Your task to perform on an android device: turn off notifications in google photos Image 0: 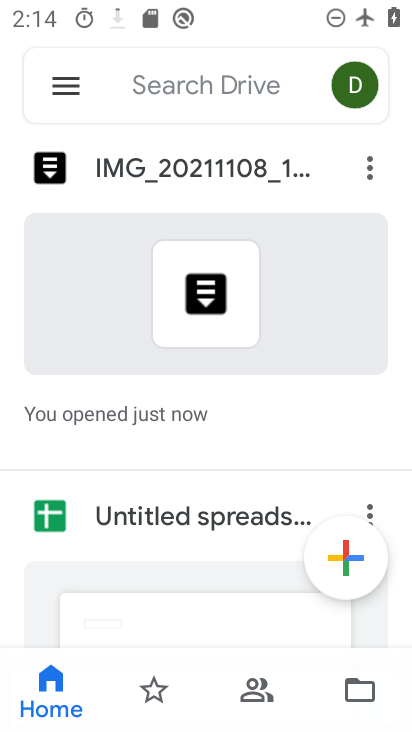
Step 0: drag from (236, 634) to (340, 138)
Your task to perform on an android device: turn off notifications in google photos Image 1: 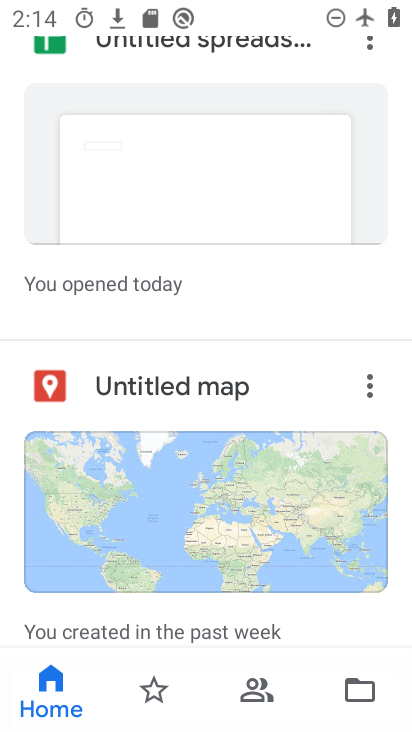
Step 1: drag from (193, 636) to (357, 175)
Your task to perform on an android device: turn off notifications in google photos Image 2: 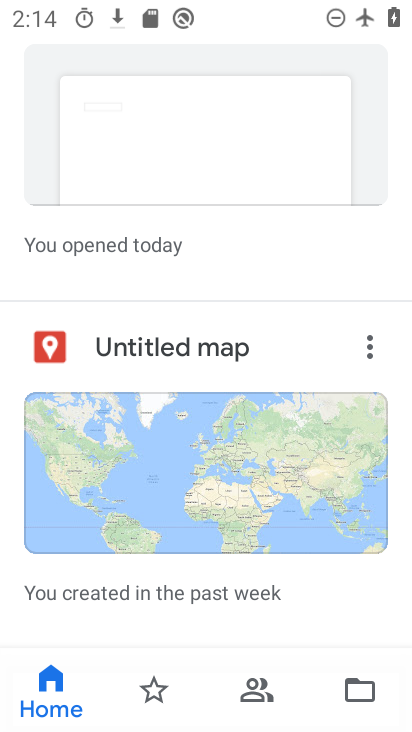
Step 2: drag from (210, 604) to (197, 59)
Your task to perform on an android device: turn off notifications in google photos Image 3: 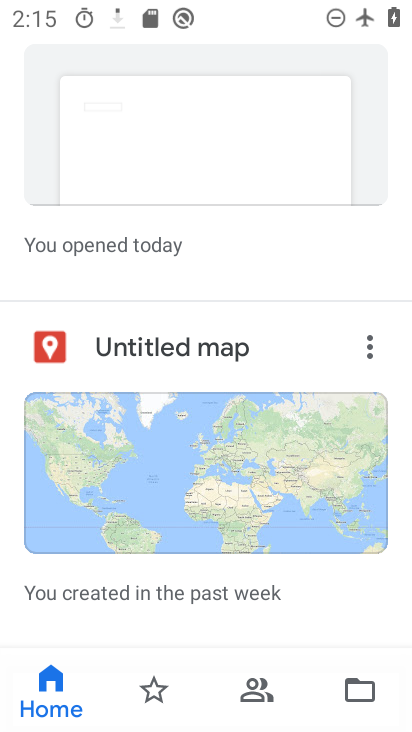
Step 3: drag from (182, 545) to (271, 177)
Your task to perform on an android device: turn off notifications in google photos Image 4: 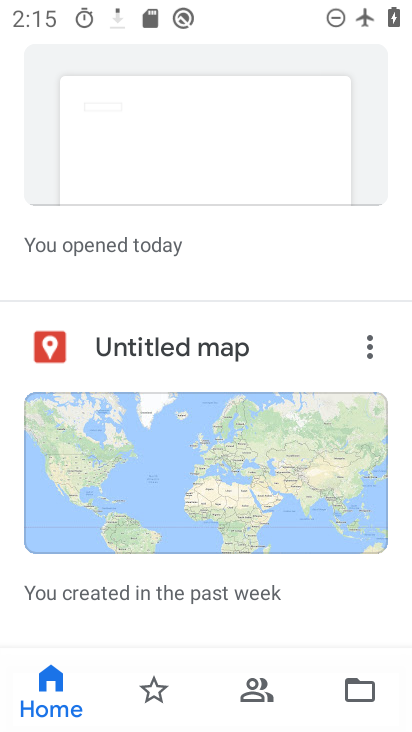
Step 4: drag from (226, 355) to (276, 724)
Your task to perform on an android device: turn off notifications in google photos Image 5: 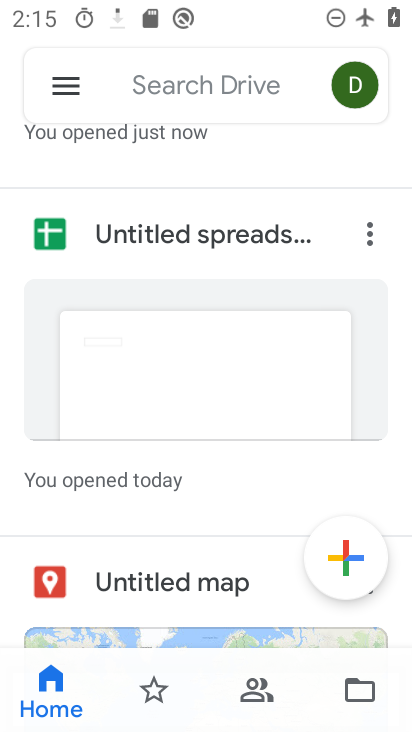
Step 5: drag from (246, 231) to (322, 636)
Your task to perform on an android device: turn off notifications in google photos Image 6: 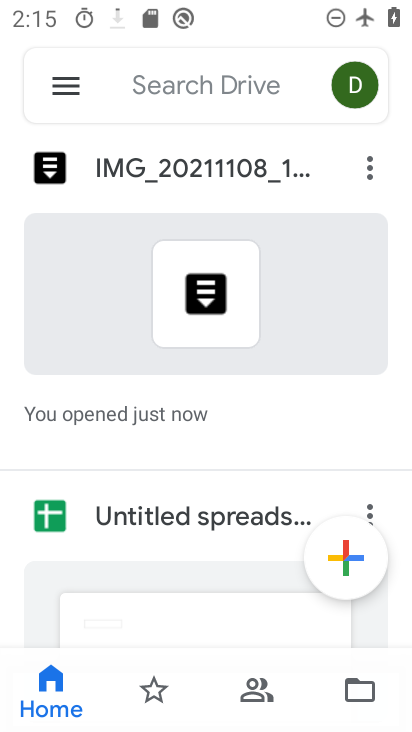
Step 6: drag from (182, 159) to (229, 547)
Your task to perform on an android device: turn off notifications in google photos Image 7: 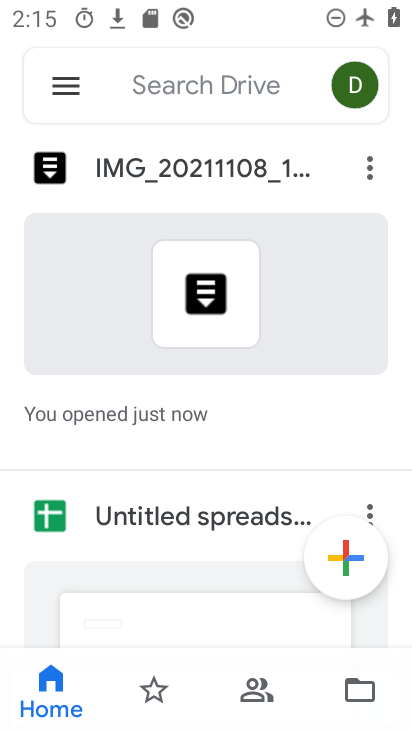
Step 7: press home button
Your task to perform on an android device: turn off notifications in google photos Image 8: 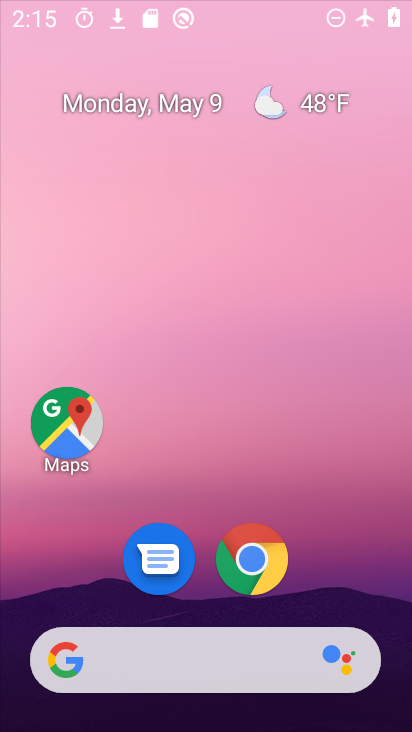
Step 8: drag from (193, 625) to (274, 149)
Your task to perform on an android device: turn off notifications in google photos Image 9: 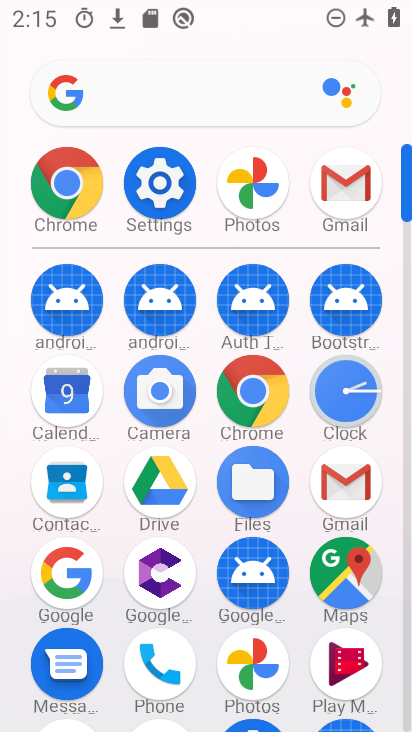
Step 9: click (262, 667)
Your task to perform on an android device: turn off notifications in google photos Image 10: 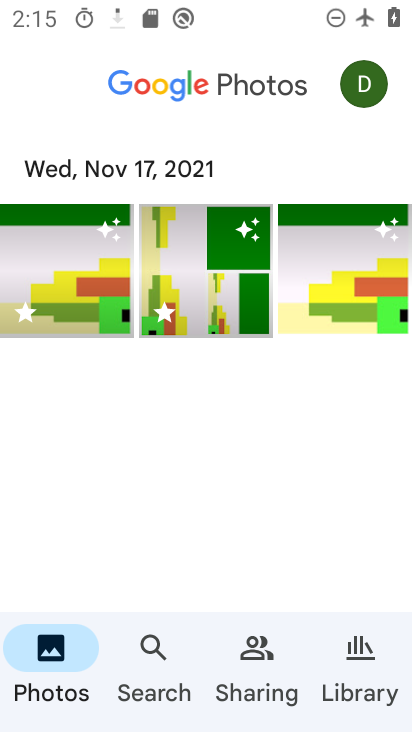
Step 10: drag from (193, 552) to (251, 124)
Your task to perform on an android device: turn off notifications in google photos Image 11: 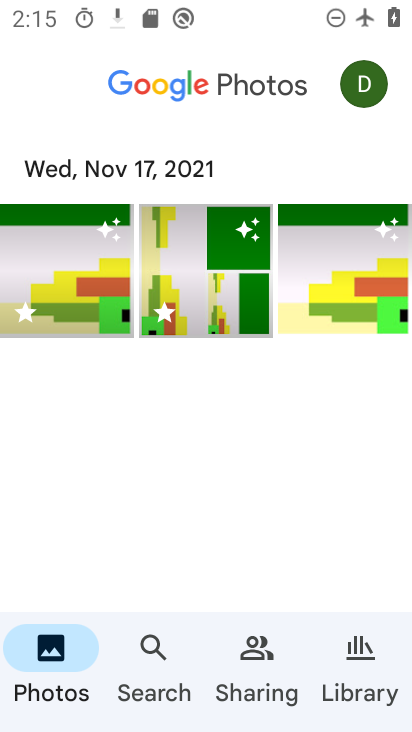
Step 11: drag from (231, 524) to (230, 374)
Your task to perform on an android device: turn off notifications in google photos Image 12: 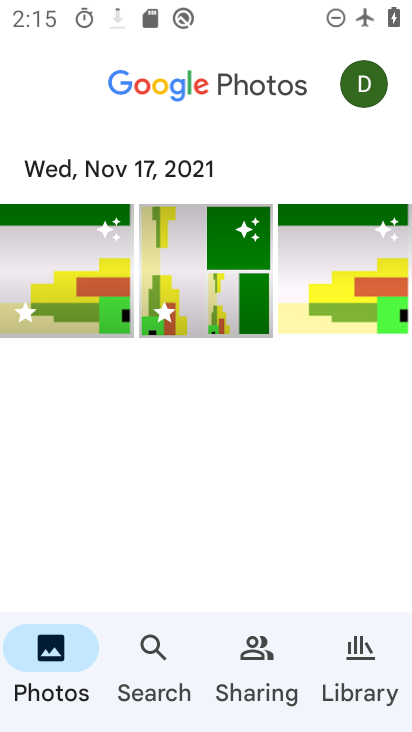
Step 12: click (77, 263)
Your task to perform on an android device: turn off notifications in google photos Image 13: 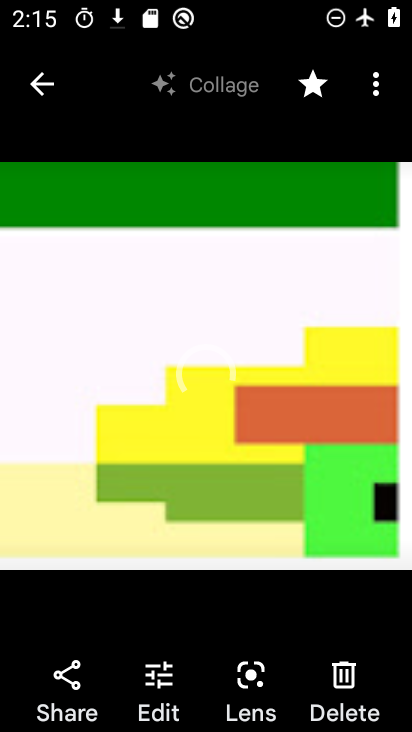
Step 13: click (262, 109)
Your task to perform on an android device: turn off notifications in google photos Image 14: 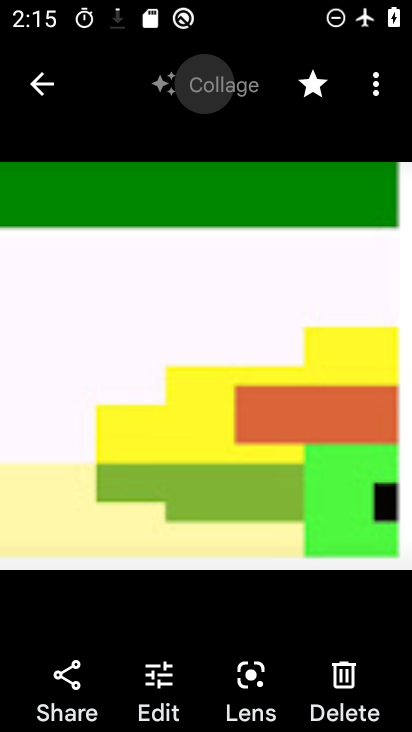
Step 14: click (101, 89)
Your task to perform on an android device: turn off notifications in google photos Image 15: 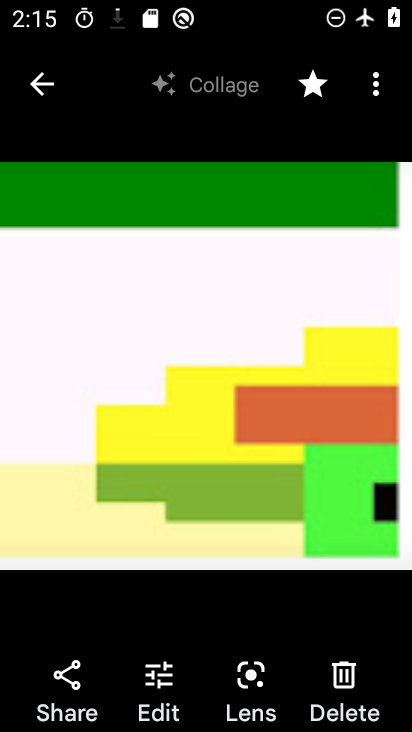
Step 15: click (49, 88)
Your task to perform on an android device: turn off notifications in google photos Image 16: 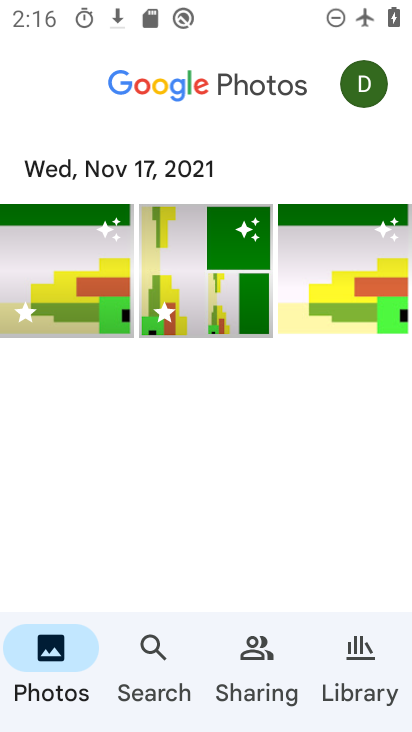
Step 16: click (355, 100)
Your task to perform on an android device: turn off notifications in google photos Image 17: 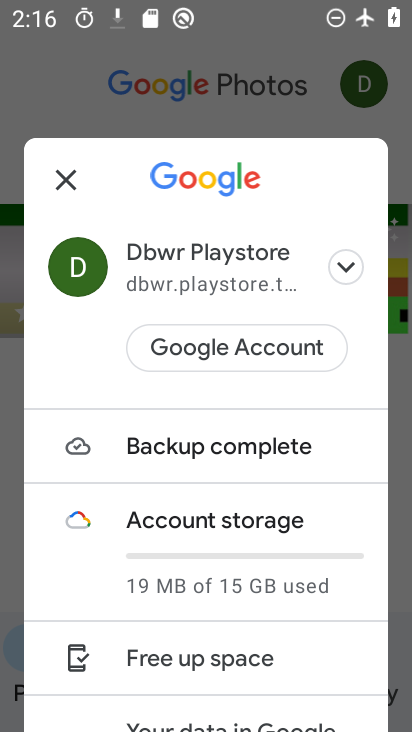
Step 17: drag from (210, 628) to (277, 285)
Your task to perform on an android device: turn off notifications in google photos Image 18: 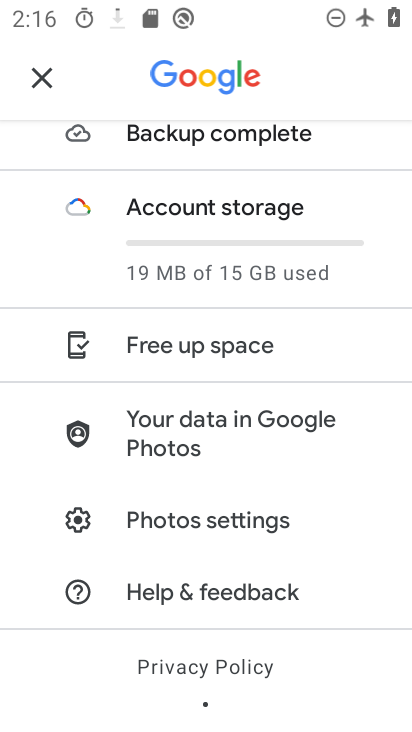
Step 18: click (176, 522)
Your task to perform on an android device: turn off notifications in google photos Image 19: 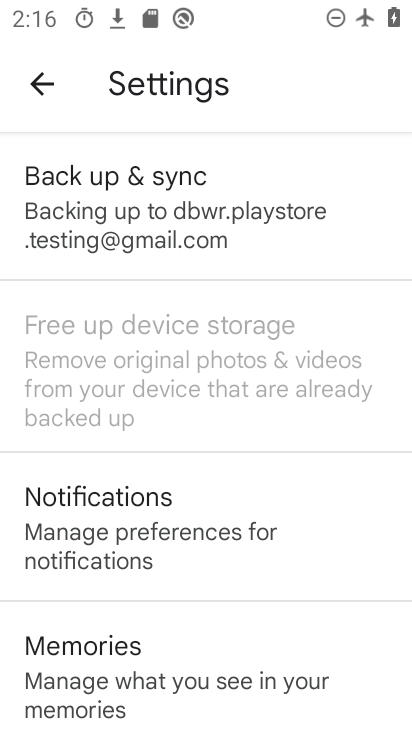
Step 19: drag from (200, 624) to (238, 396)
Your task to perform on an android device: turn off notifications in google photos Image 20: 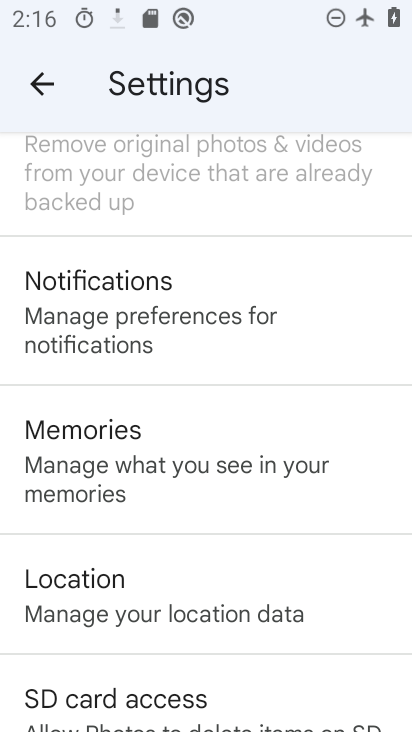
Step 20: drag from (248, 585) to (292, 261)
Your task to perform on an android device: turn off notifications in google photos Image 21: 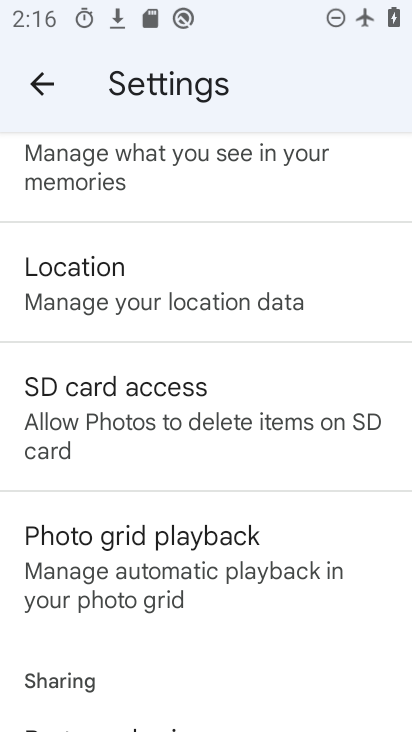
Step 21: drag from (199, 511) to (244, 295)
Your task to perform on an android device: turn off notifications in google photos Image 22: 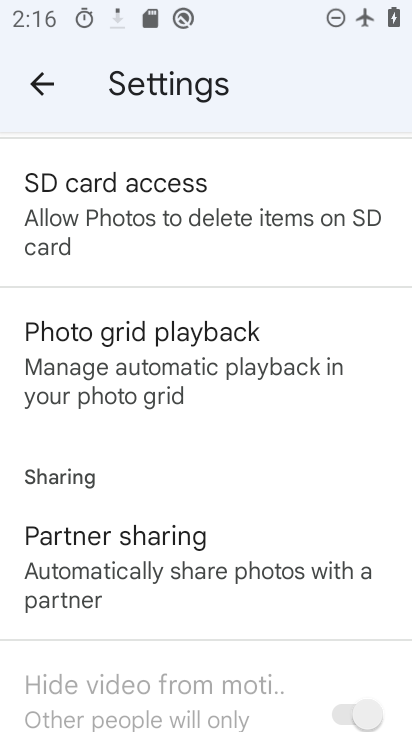
Step 22: drag from (190, 217) to (218, 730)
Your task to perform on an android device: turn off notifications in google photos Image 23: 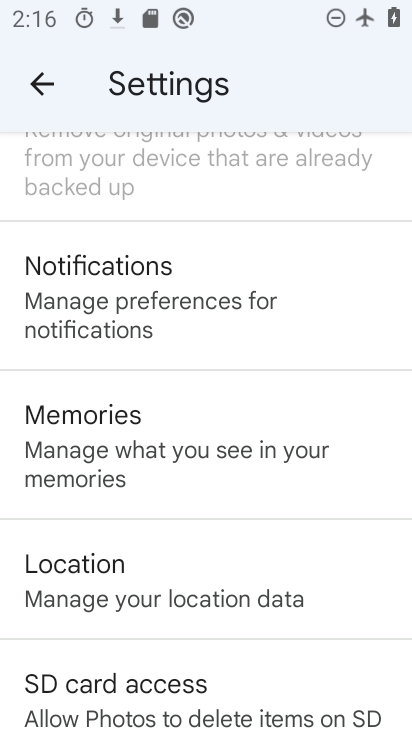
Step 23: drag from (161, 296) to (258, 727)
Your task to perform on an android device: turn off notifications in google photos Image 24: 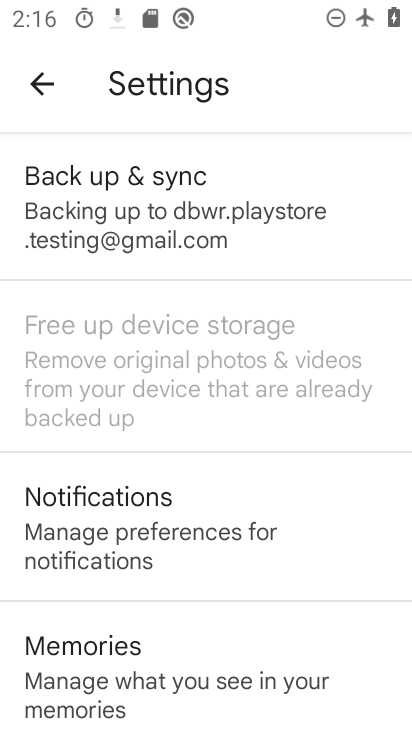
Step 24: drag from (203, 616) to (239, 341)
Your task to perform on an android device: turn off notifications in google photos Image 25: 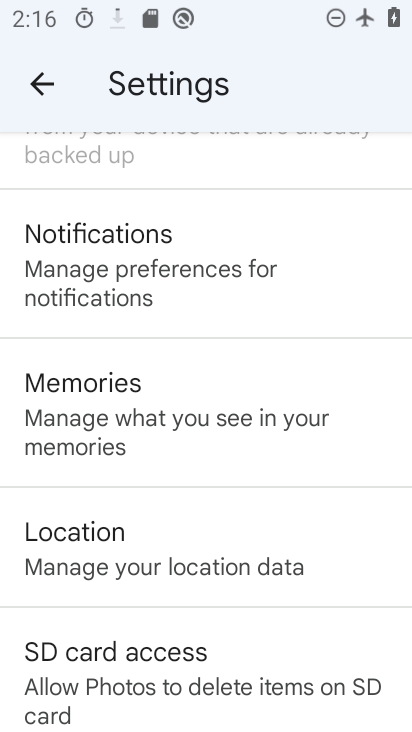
Step 25: click (207, 263)
Your task to perform on an android device: turn off notifications in google photos Image 26: 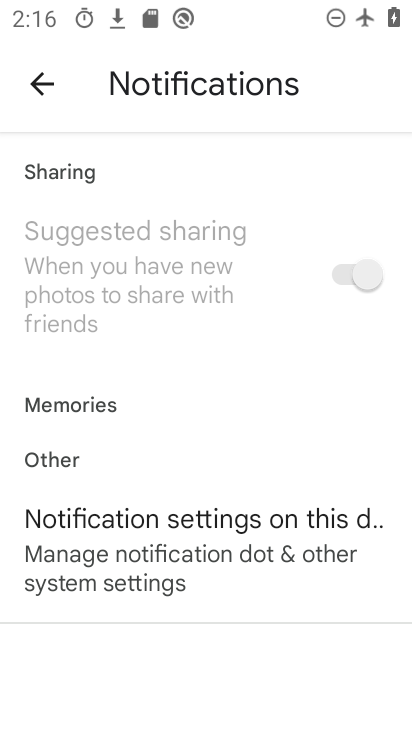
Step 26: drag from (190, 542) to (260, 271)
Your task to perform on an android device: turn off notifications in google photos Image 27: 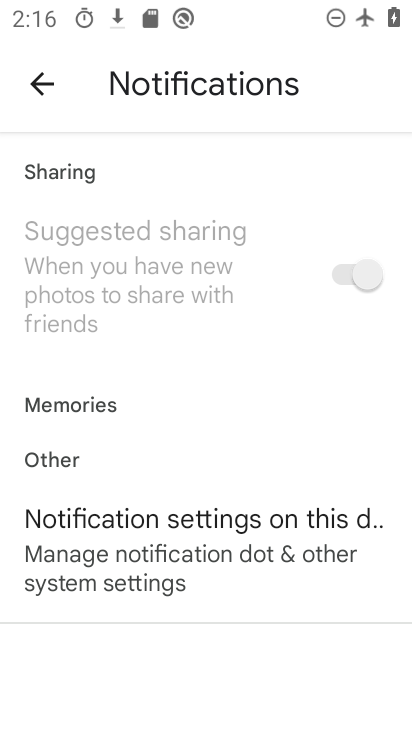
Step 27: click (153, 567)
Your task to perform on an android device: turn off notifications in google photos Image 28: 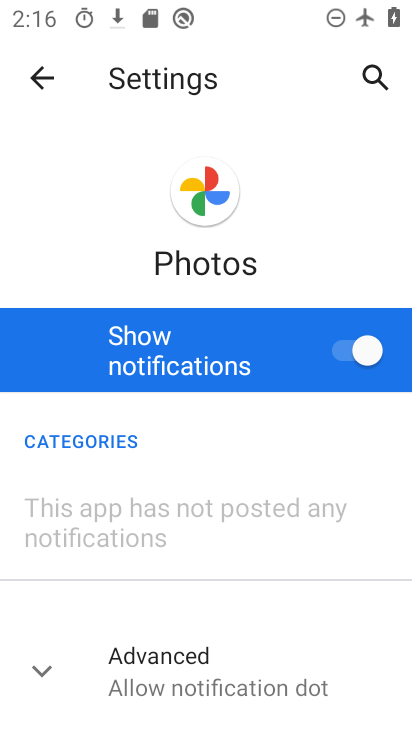
Step 28: click (353, 325)
Your task to perform on an android device: turn off notifications in google photos Image 29: 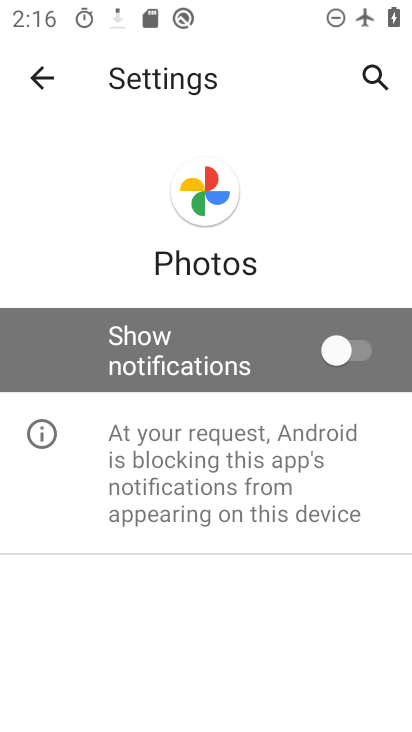
Step 29: task complete